Your task to perform on an android device: move a message to another label in the gmail app Image 0: 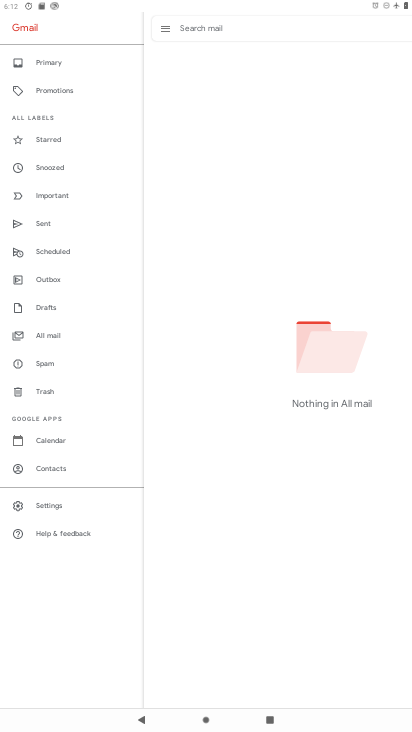
Step 0: press home button
Your task to perform on an android device: move a message to another label in the gmail app Image 1: 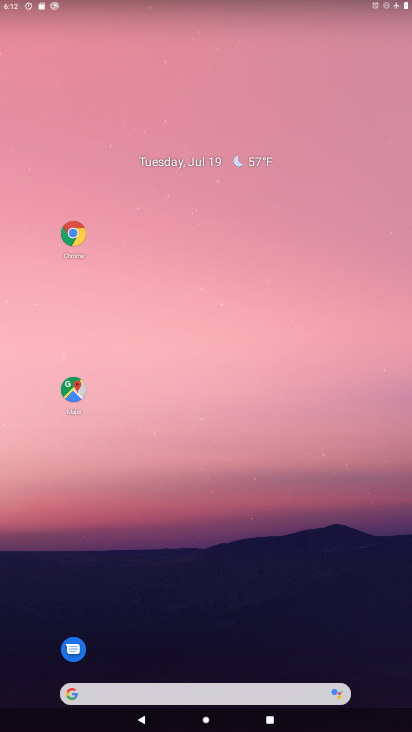
Step 1: drag from (180, 630) to (211, 14)
Your task to perform on an android device: move a message to another label in the gmail app Image 2: 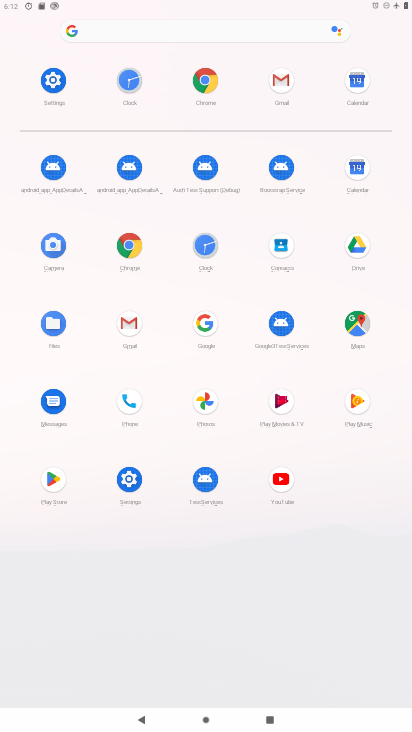
Step 2: click (124, 330)
Your task to perform on an android device: move a message to another label in the gmail app Image 3: 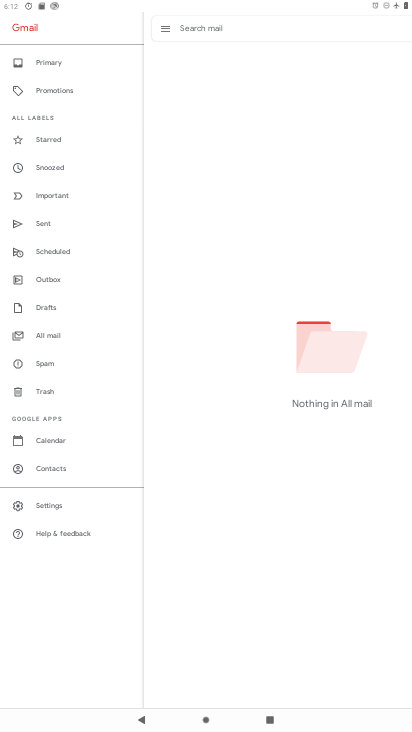
Step 3: task complete